Your task to perform on an android device: refresh tabs in the chrome app Image 0: 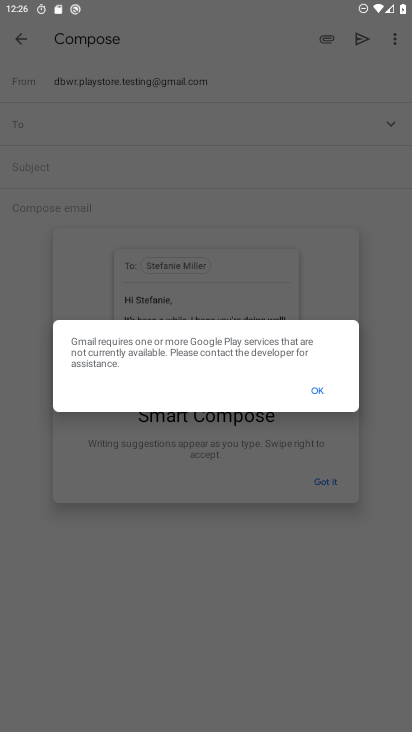
Step 0: press home button
Your task to perform on an android device: refresh tabs in the chrome app Image 1: 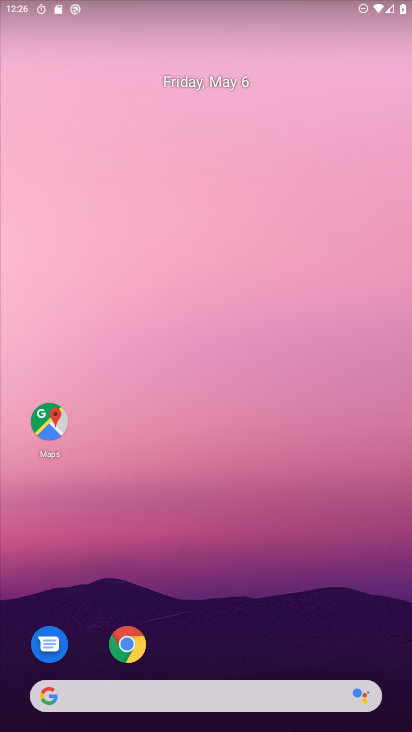
Step 1: drag from (314, 585) to (325, 189)
Your task to perform on an android device: refresh tabs in the chrome app Image 2: 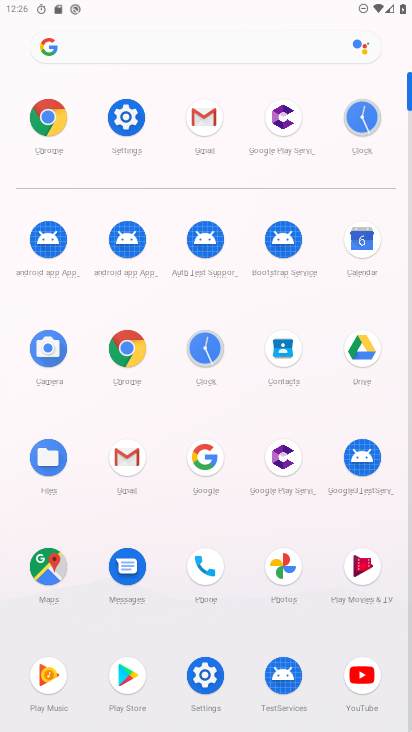
Step 2: click (130, 347)
Your task to perform on an android device: refresh tabs in the chrome app Image 3: 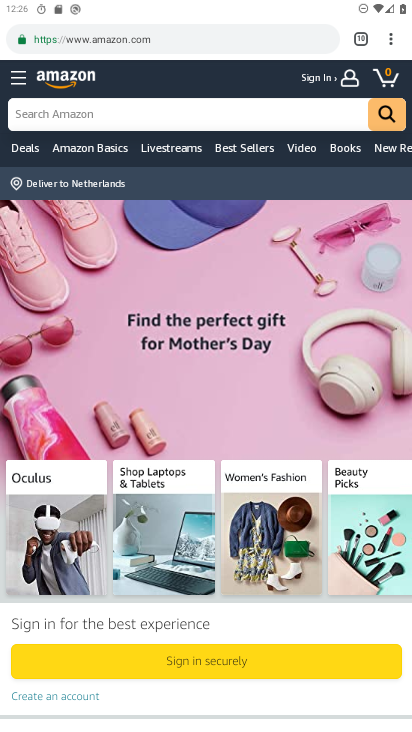
Step 3: click (393, 43)
Your task to perform on an android device: refresh tabs in the chrome app Image 4: 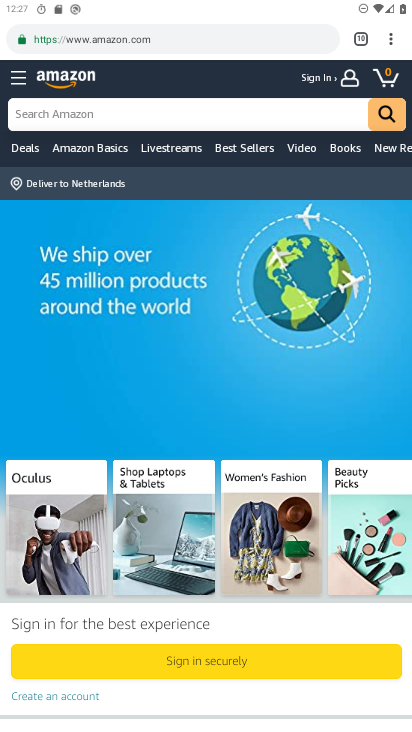
Step 4: task complete